Your task to perform on an android device: Search for razer blade on walmart.com, select the first entry, add it to the cart, then select checkout. Image 0: 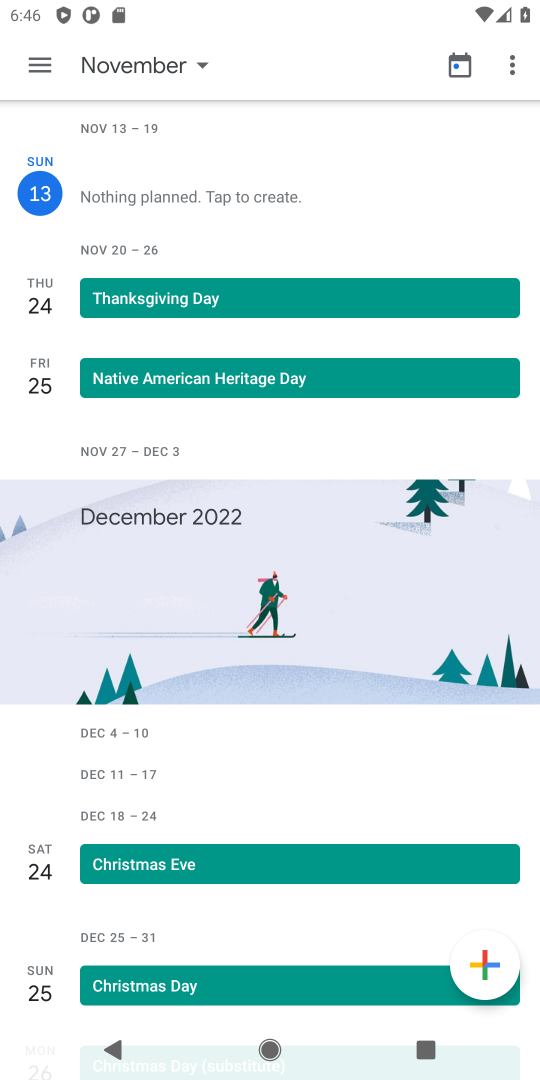
Step 0: press home button
Your task to perform on an android device: Search for razer blade on walmart.com, select the first entry, add it to the cart, then select checkout. Image 1: 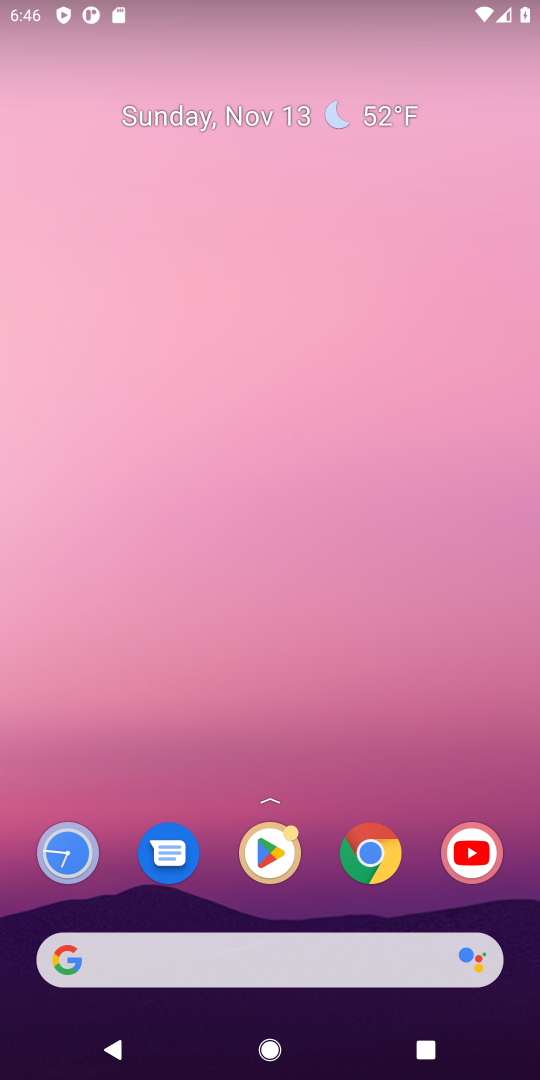
Step 1: click (103, 941)
Your task to perform on an android device: Search for razer blade on walmart.com, select the first entry, add it to the cart, then select checkout. Image 2: 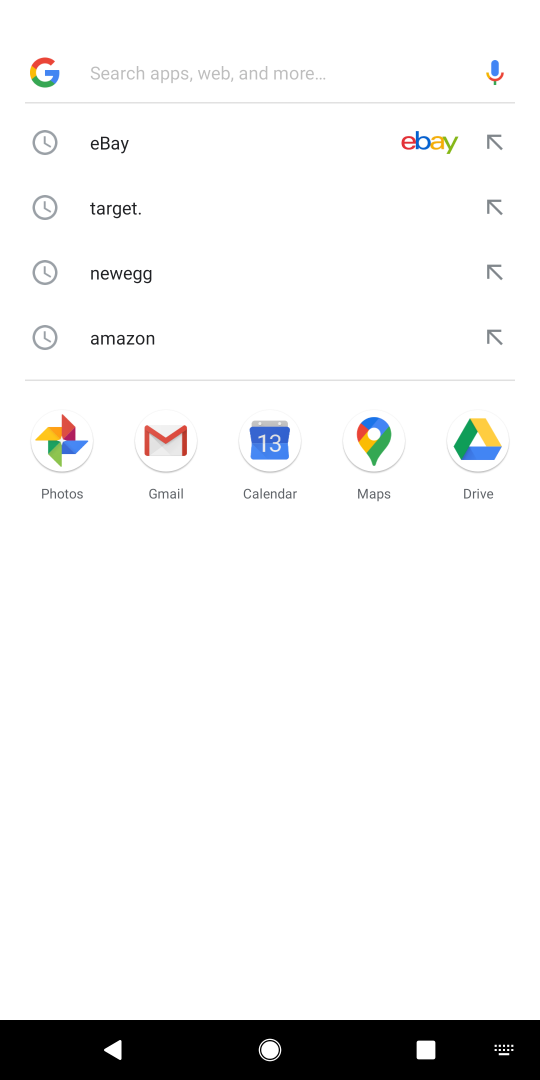
Step 2: type " walmart.com"
Your task to perform on an android device: Search for razer blade on walmart.com, select the first entry, add it to the cart, then select checkout. Image 3: 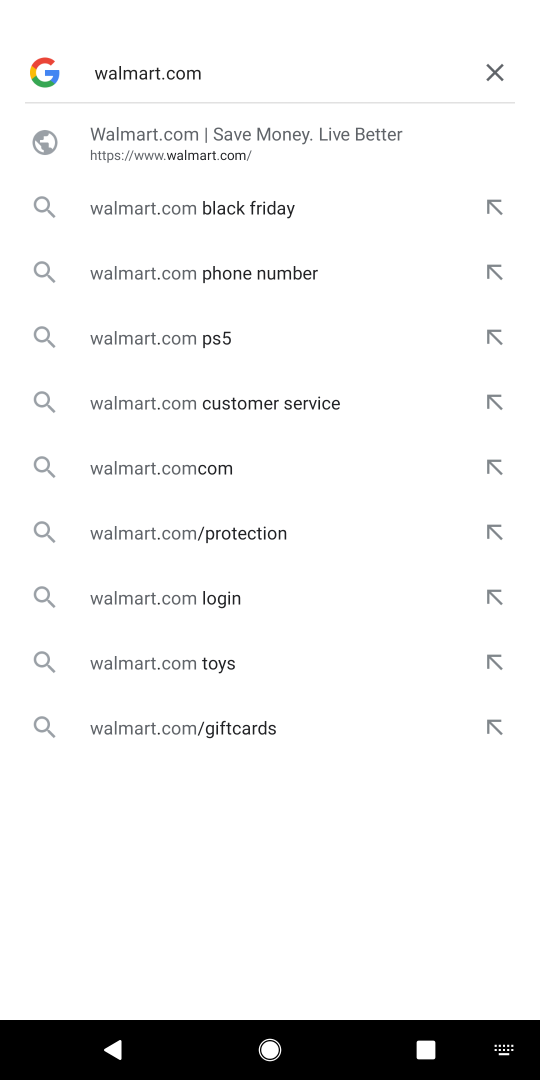
Step 3: press enter
Your task to perform on an android device: Search for razer blade on walmart.com, select the first entry, add it to the cart, then select checkout. Image 4: 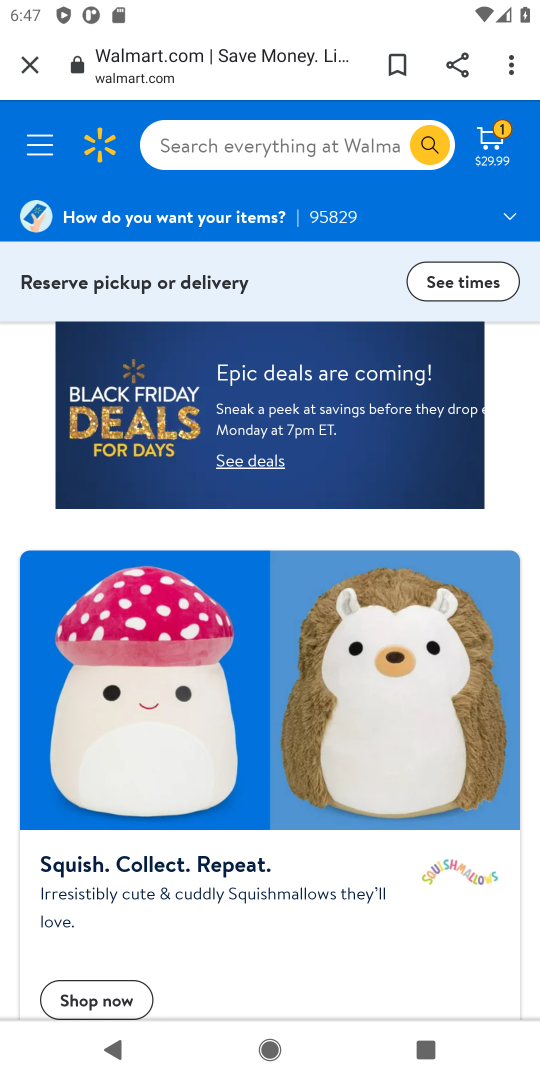
Step 4: click (197, 146)
Your task to perform on an android device: Search for razer blade on walmart.com, select the first entry, add it to the cart, then select checkout. Image 5: 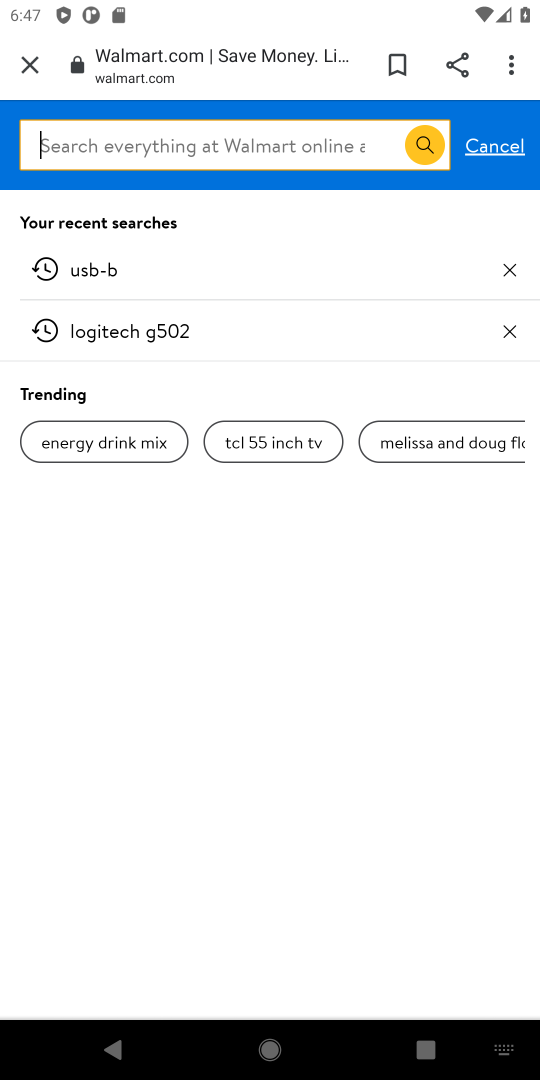
Step 5: type " razer blade"
Your task to perform on an android device: Search for razer blade on walmart.com, select the first entry, add it to the cart, then select checkout. Image 6: 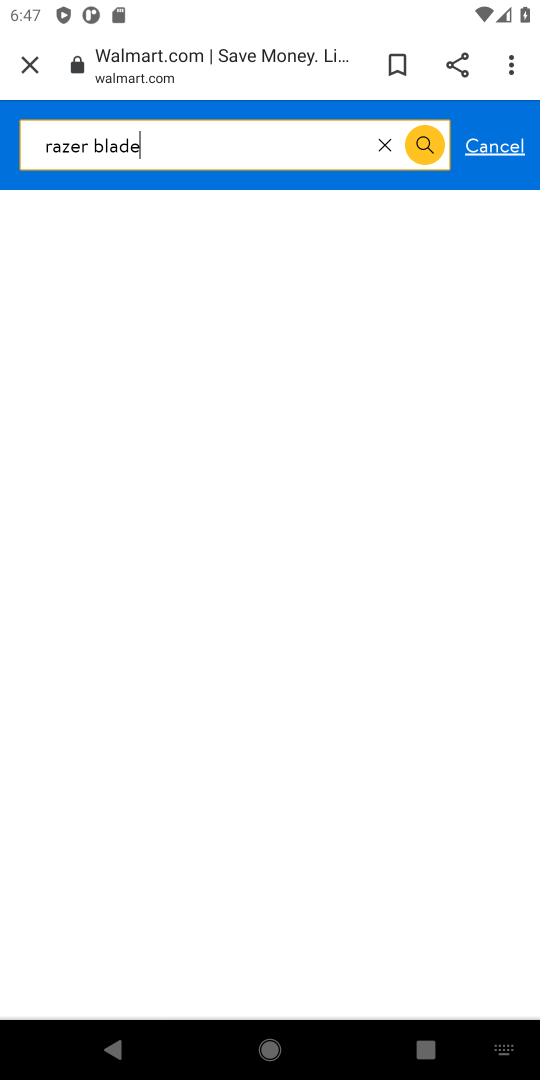
Step 6: press enter
Your task to perform on an android device: Search for razer blade on walmart.com, select the first entry, add it to the cart, then select checkout. Image 7: 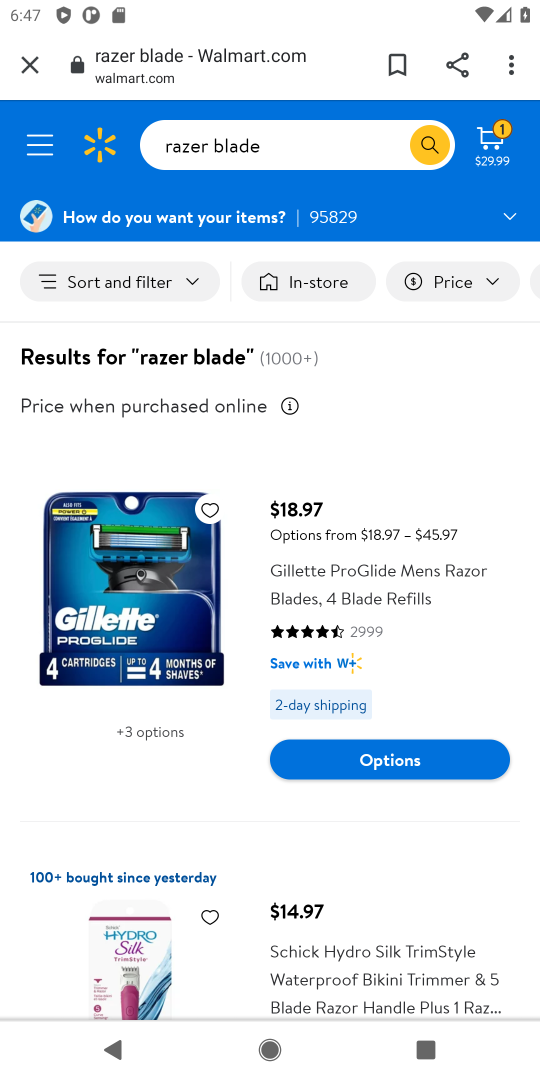
Step 7: click (312, 564)
Your task to perform on an android device: Search for razer blade on walmart.com, select the first entry, add it to the cart, then select checkout. Image 8: 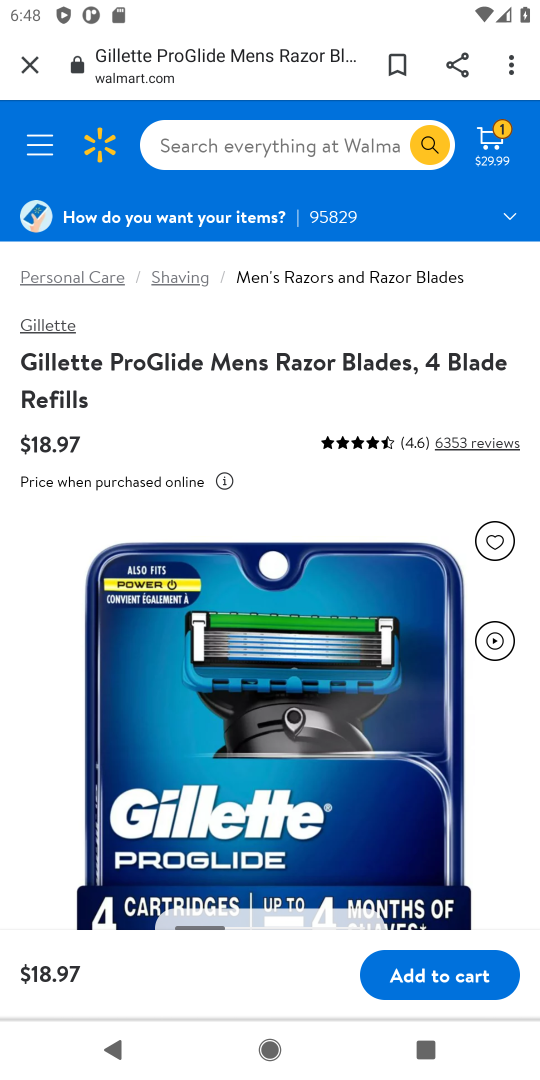
Step 8: click (426, 985)
Your task to perform on an android device: Search for razer blade on walmart.com, select the first entry, add it to the cart, then select checkout. Image 9: 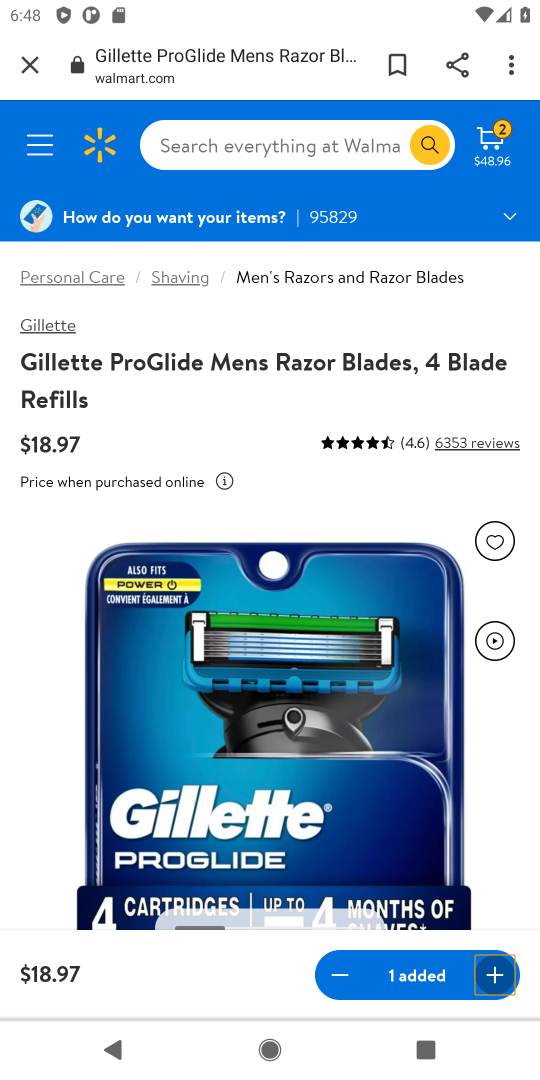
Step 9: drag from (310, 822) to (315, 544)
Your task to perform on an android device: Search for razer blade on walmart.com, select the first entry, add it to the cart, then select checkout. Image 10: 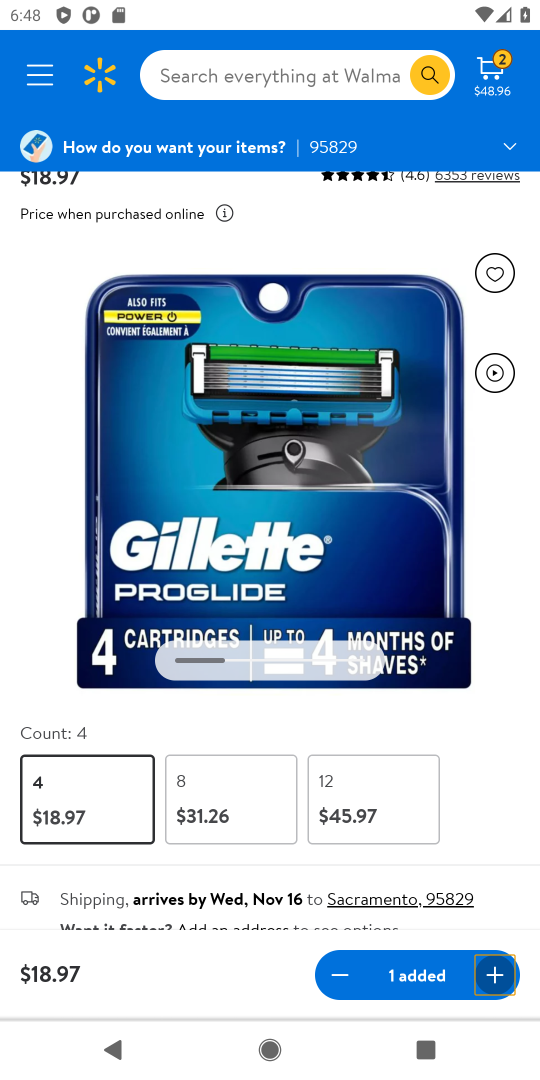
Step 10: click (494, 73)
Your task to perform on an android device: Search for razer blade on walmart.com, select the first entry, add it to the cart, then select checkout. Image 11: 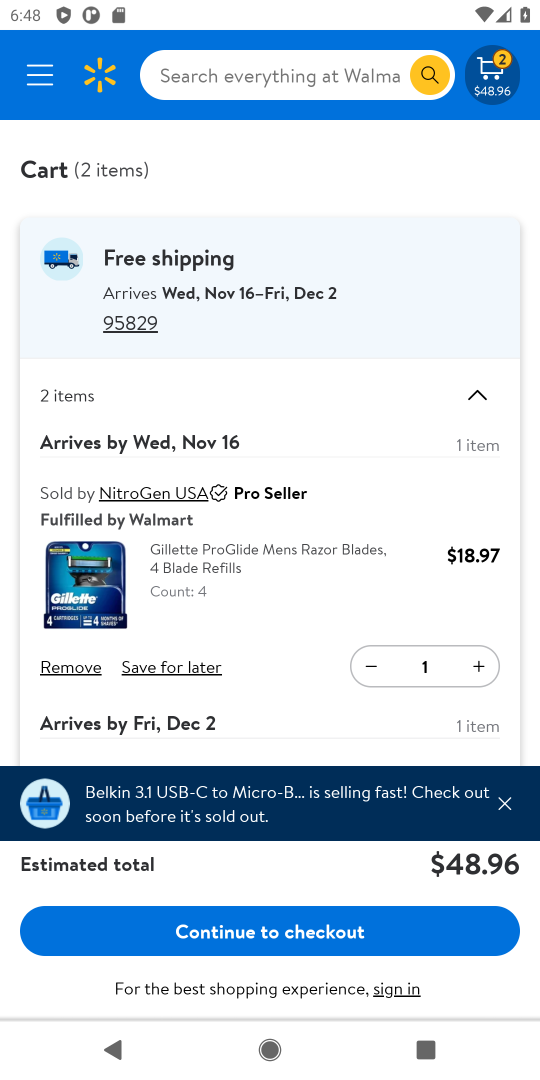
Step 11: click (231, 936)
Your task to perform on an android device: Search for razer blade on walmart.com, select the first entry, add it to the cart, then select checkout. Image 12: 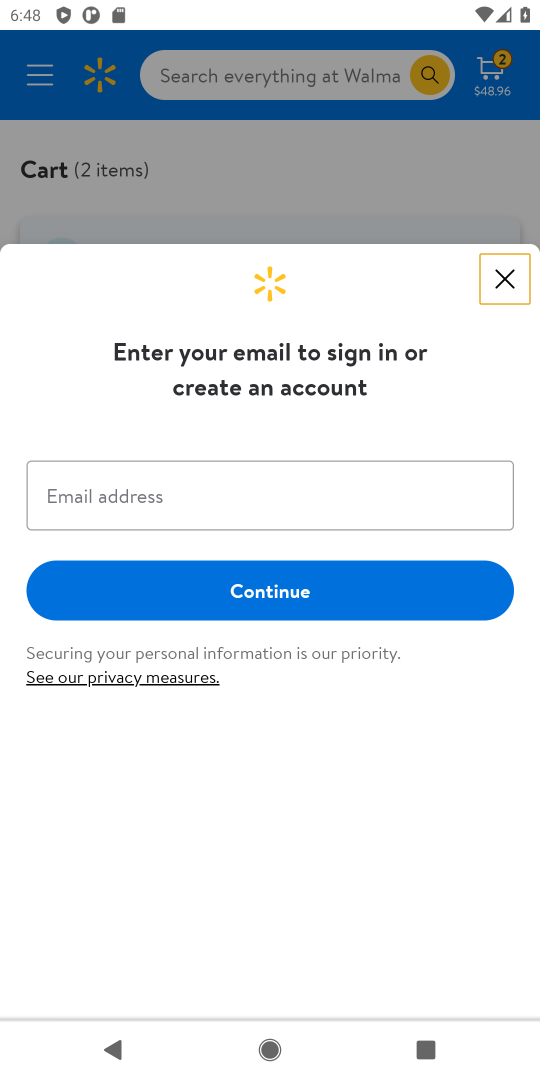
Step 12: task complete